Your task to perform on an android device: see tabs open on other devices in the chrome app Image 0: 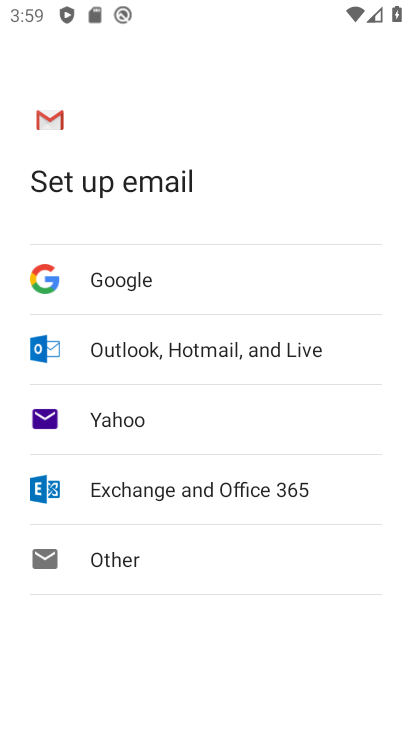
Step 0: drag from (255, 685) to (317, 381)
Your task to perform on an android device: see tabs open on other devices in the chrome app Image 1: 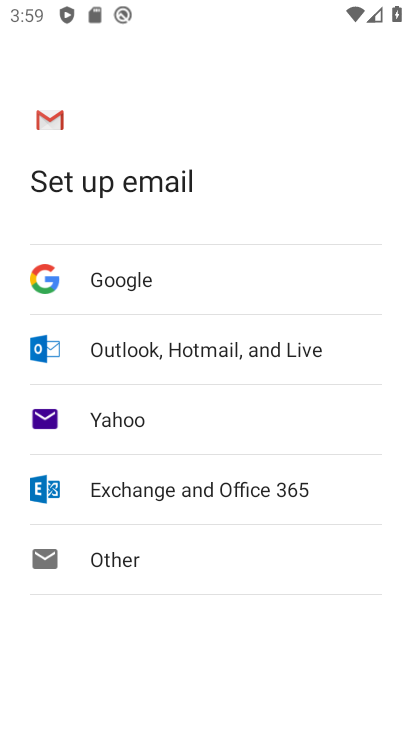
Step 1: press home button
Your task to perform on an android device: see tabs open on other devices in the chrome app Image 2: 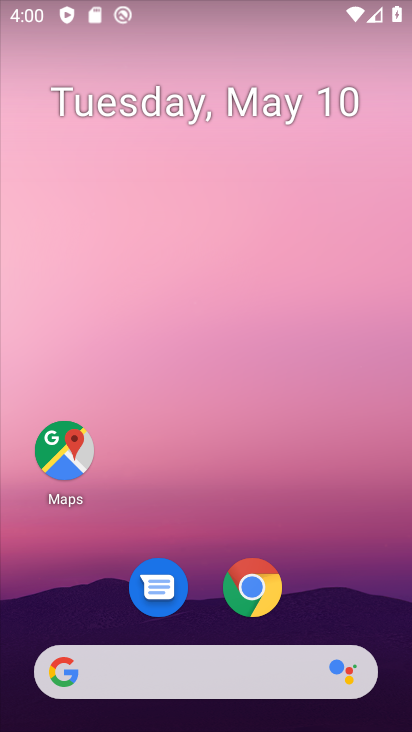
Step 2: drag from (292, 702) to (259, 110)
Your task to perform on an android device: see tabs open on other devices in the chrome app Image 3: 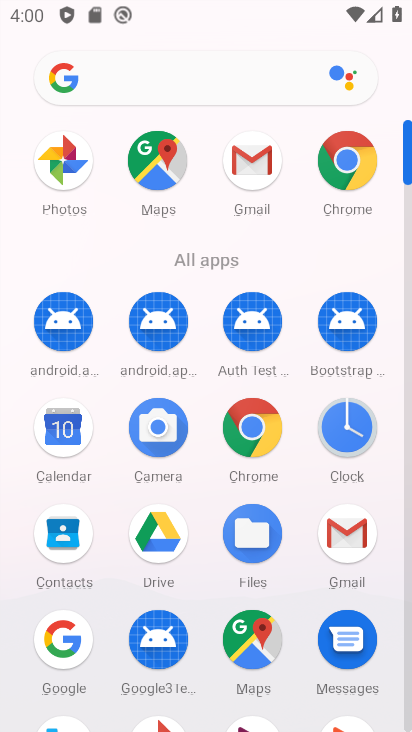
Step 3: click (347, 179)
Your task to perform on an android device: see tabs open on other devices in the chrome app Image 4: 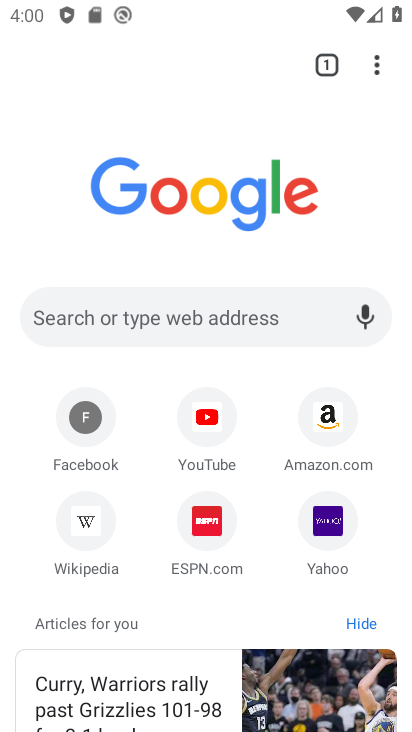
Step 4: click (346, 58)
Your task to perform on an android device: see tabs open on other devices in the chrome app Image 5: 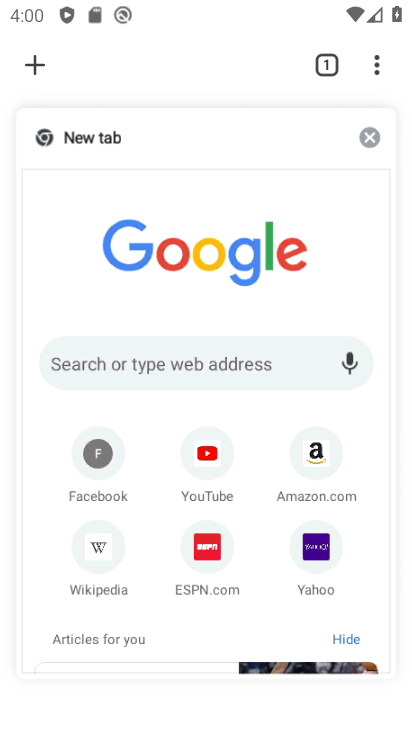
Step 5: click (34, 54)
Your task to perform on an android device: see tabs open on other devices in the chrome app Image 6: 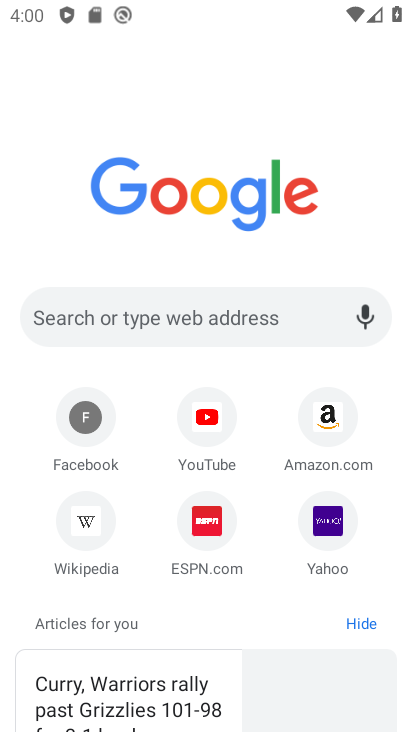
Step 6: task complete